Your task to perform on an android device: change the clock display to digital Image 0: 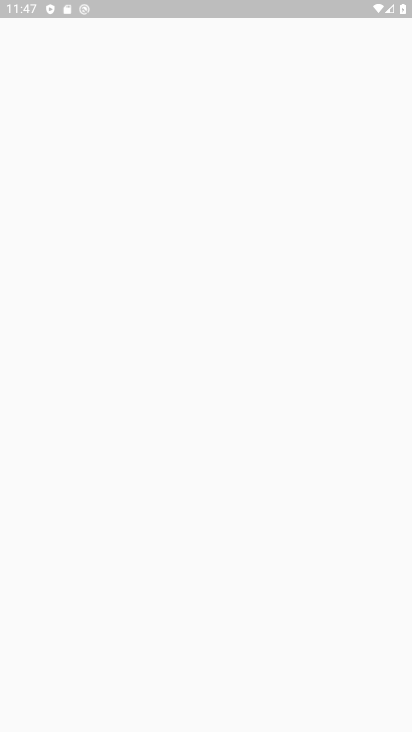
Step 0: press home button
Your task to perform on an android device: change the clock display to digital Image 1: 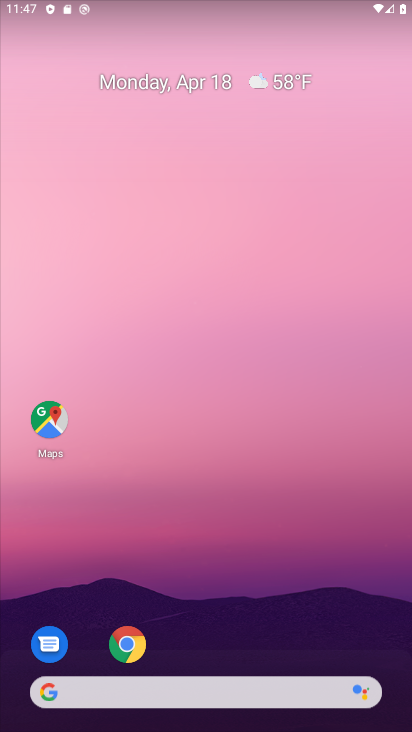
Step 1: drag from (253, 634) to (297, 79)
Your task to perform on an android device: change the clock display to digital Image 2: 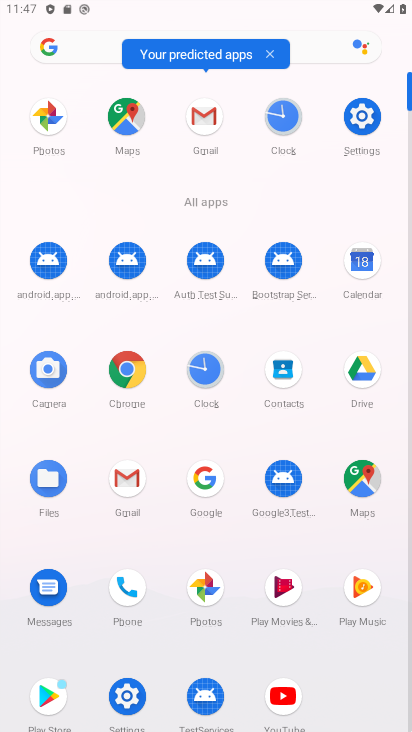
Step 2: click (194, 369)
Your task to perform on an android device: change the clock display to digital Image 3: 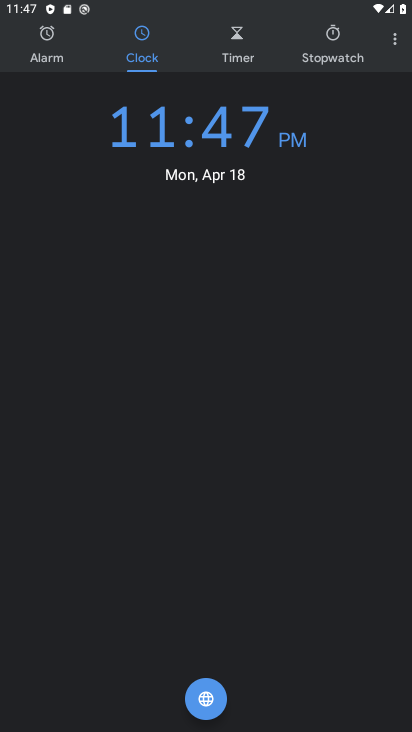
Step 3: click (390, 40)
Your task to perform on an android device: change the clock display to digital Image 4: 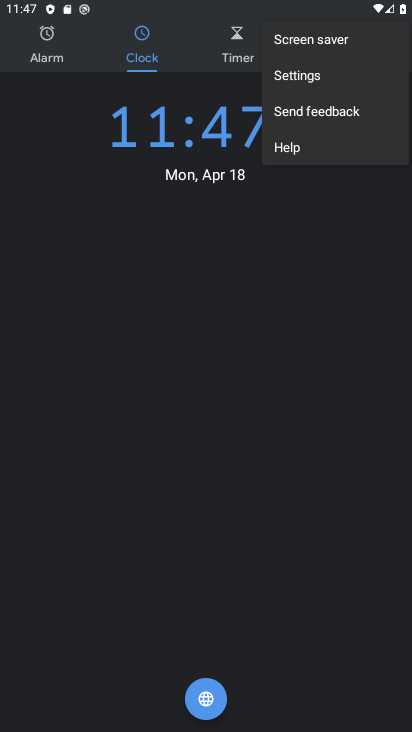
Step 4: click (328, 77)
Your task to perform on an android device: change the clock display to digital Image 5: 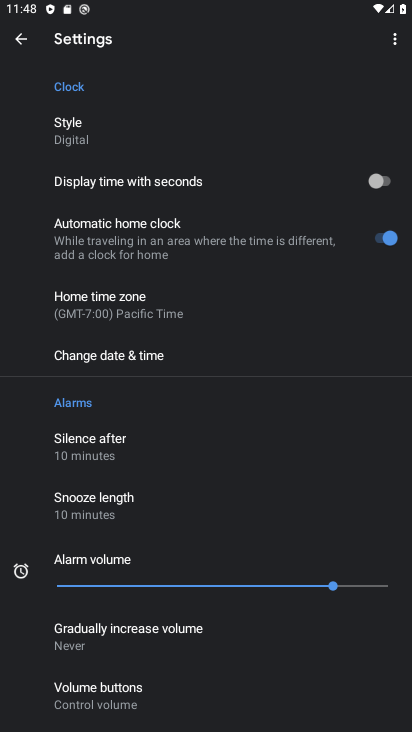
Step 5: click (143, 119)
Your task to perform on an android device: change the clock display to digital Image 6: 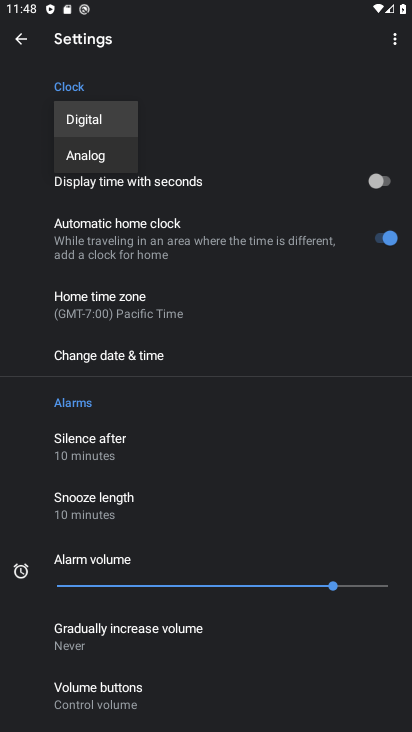
Step 6: task complete